Your task to perform on an android device: add a label to a message in the gmail app Image 0: 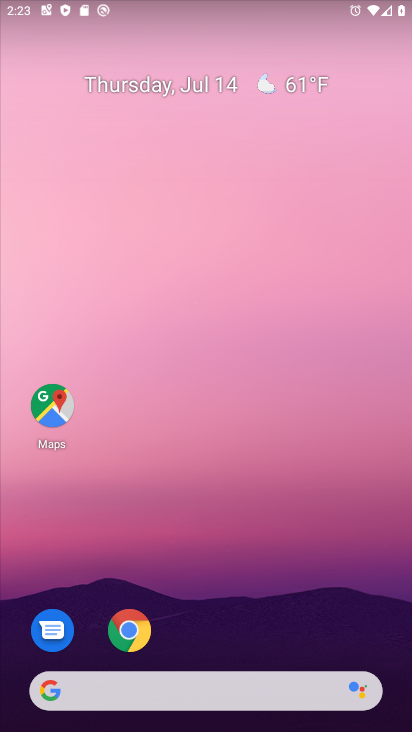
Step 0: drag from (170, 672) to (294, 110)
Your task to perform on an android device: add a label to a message in the gmail app Image 1: 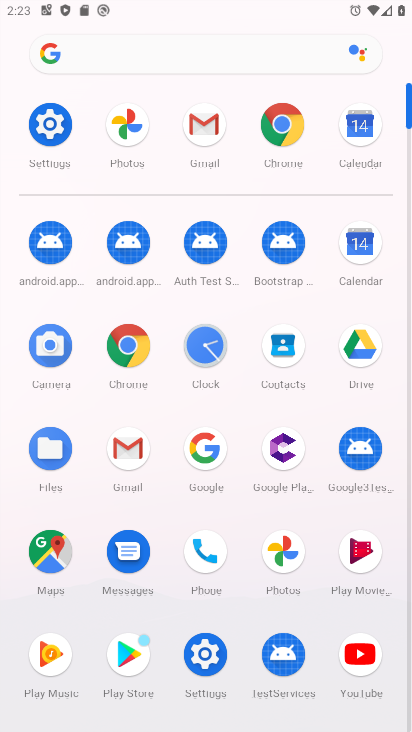
Step 1: click (209, 125)
Your task to perform on an android device: add a label to a message in the gmail app Image 2: 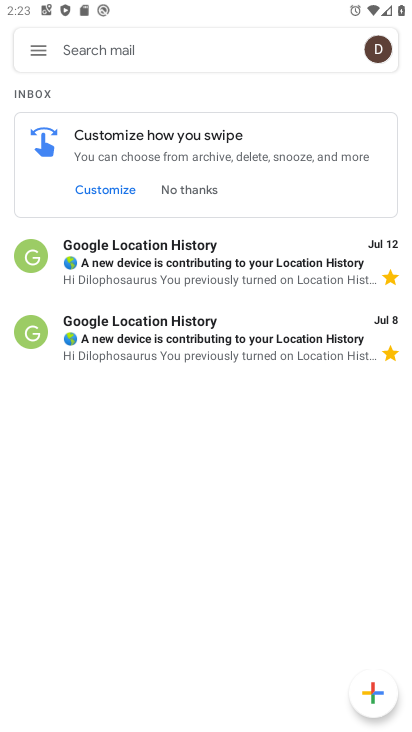
Step 2: click (115, 271)
Your task to perform on an android device: add a label to a message in the gmail app Image 3: 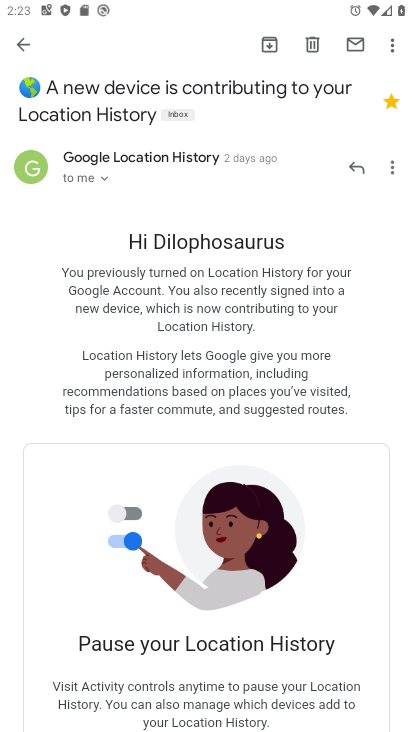
Step 3: click (179, 117)
Your task to perform on an android device: add a label to a message in the gmail app Image 4: 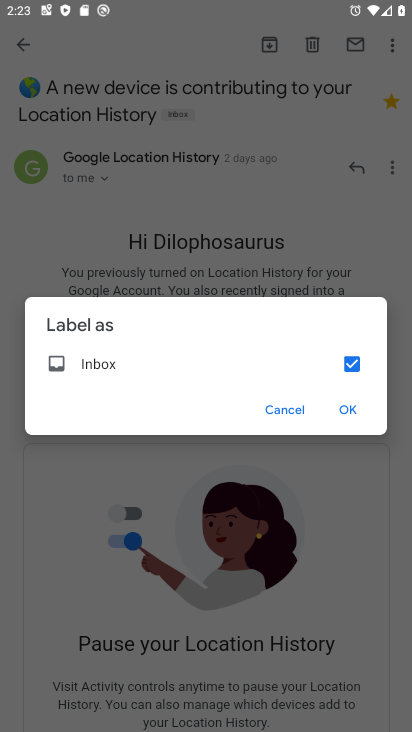
Step 4: task complete